Your task to perform on an android device: toggle sleep mode Image 0: 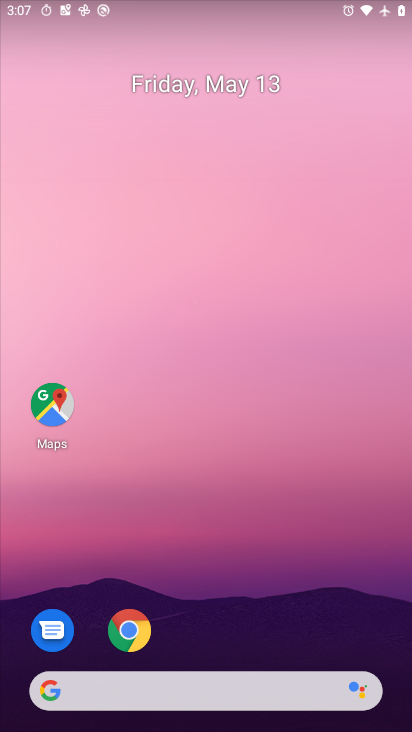
Step 0: drag from (324, 527) to (309, 207)
Your task to perform on an android device: toggle sleep mode Image 1: 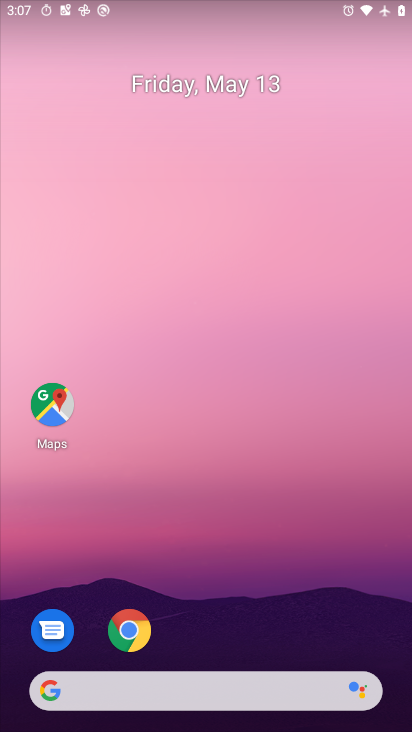
Step 1: drag from (195, 494) to (226, 272)
Your task to perform on an android device: toggle sleep mode Image 2: 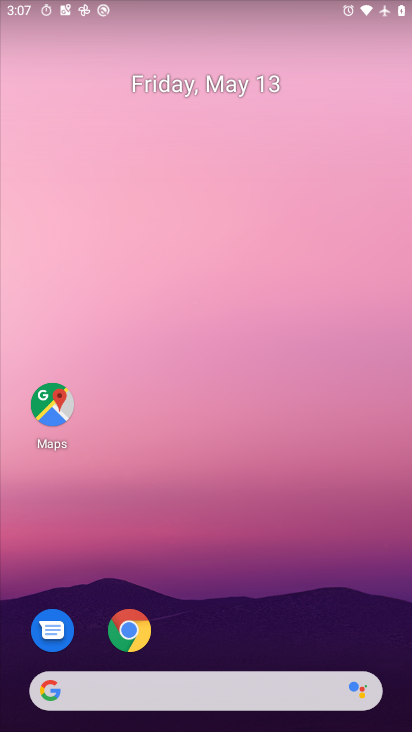
Step 2: drag from (206, 624) to (245, 81)
Your task to perform on an android device: toggle sleep mode Image 3: 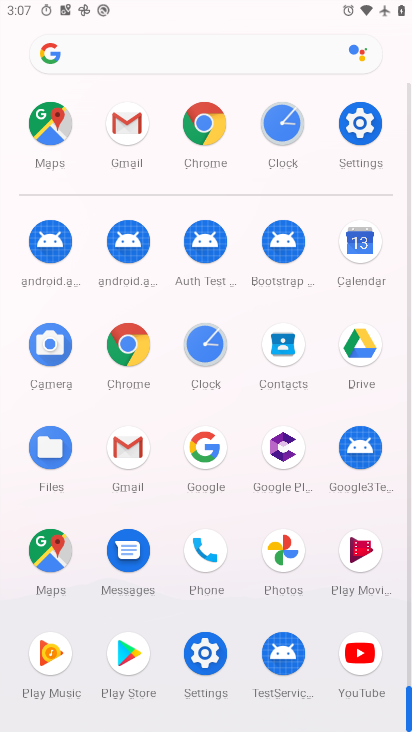
Step 3: click (377, 131)
Your task to perform on an android device: toggle sleep mode Image 4: 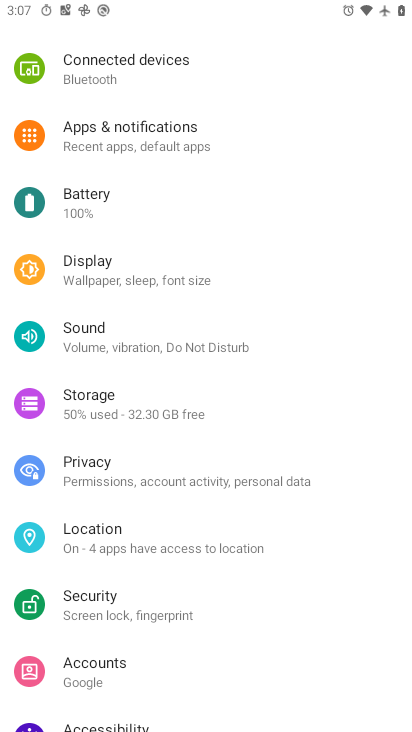
Step 4: task complete